Your task to perform on an android device: Go to Android settings Image 0: 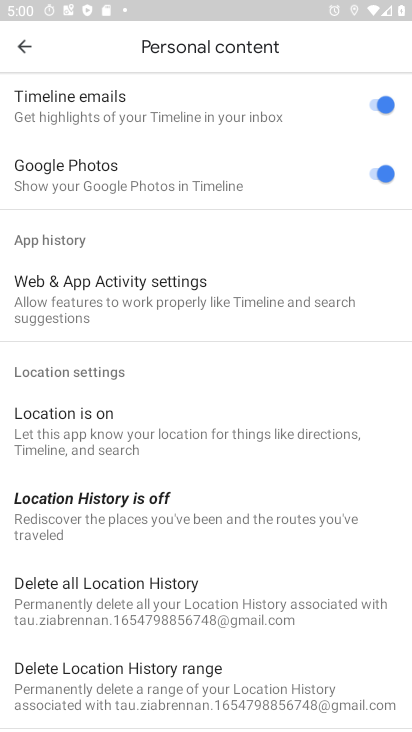
Step 0: press home button
Your task to perform on an android device: Go to Android settings Image 1: 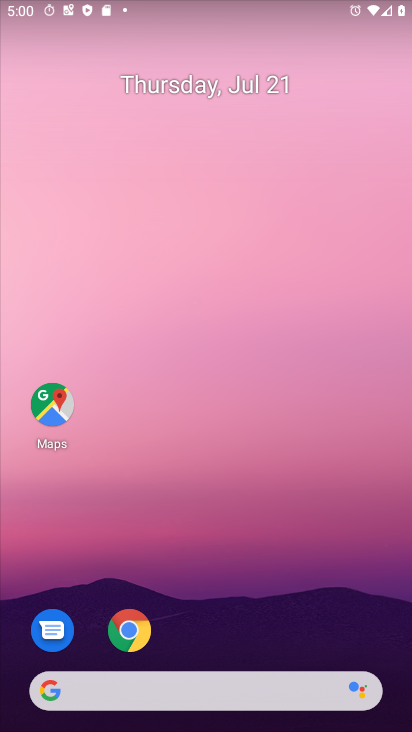
Step 1: drag from (164, 688) to (213, 344)
Your task to perform on an android device: Go to Android settings Image 2: 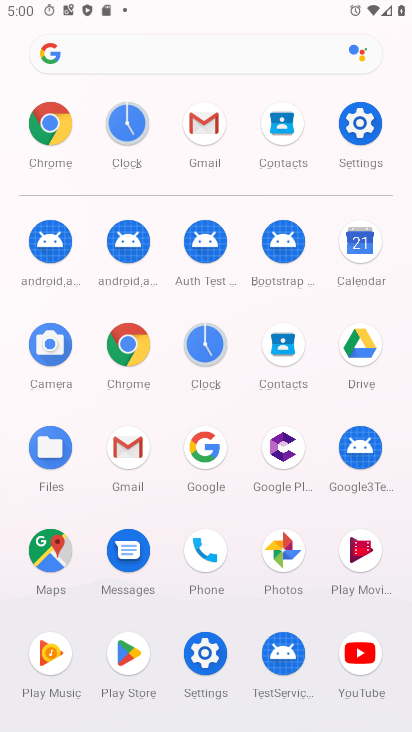
Step 2: click (360, 123)
Your task to perform on an android device: Go to Android settings Image 3: 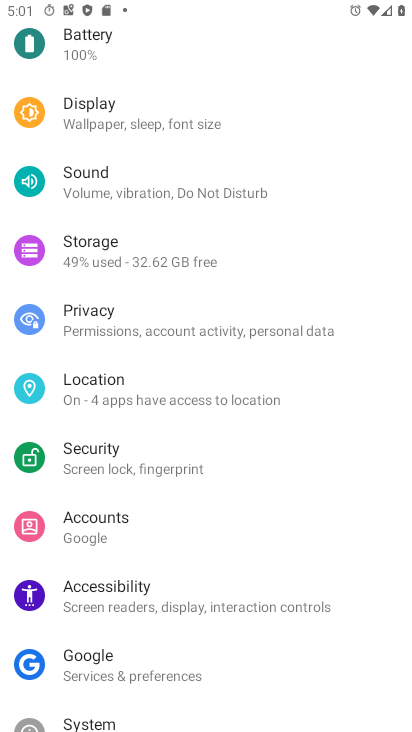
Step 3: task complete